Your task to perform on an android device: add a contact in the contacts app Image 0: 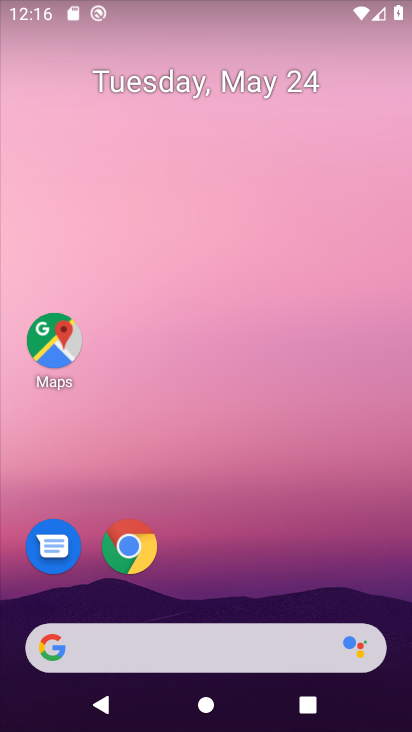
Step 0: drag from (251, 611) to (248, 56)
Your task to perform on an android device: add a contact in the contacts app Image 1: 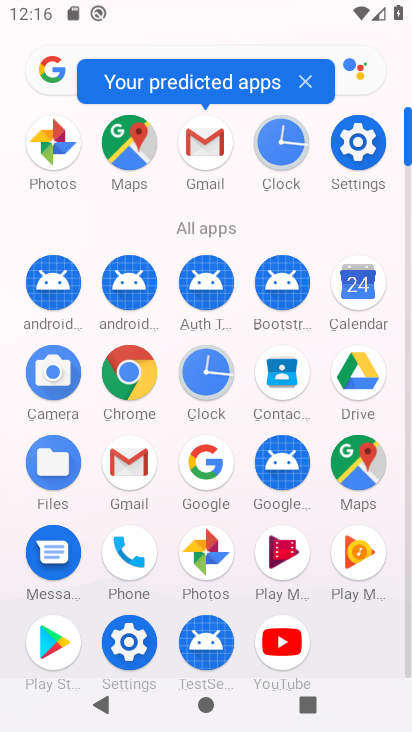
Step 1: click (283, 384)
Your task to perform on an android device: add a contact in the contacts app Image 2: 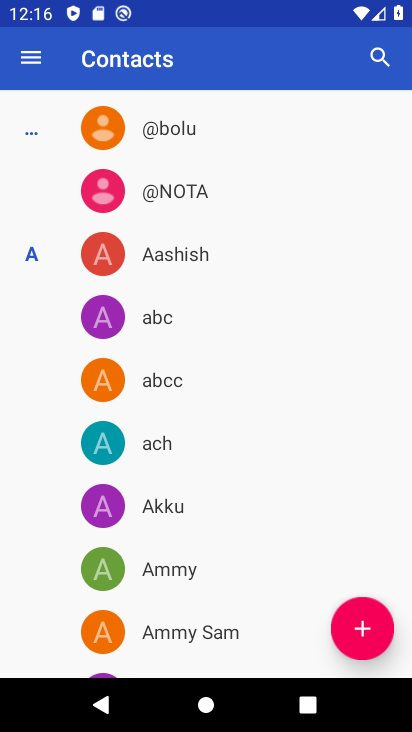
Step 2: click (351, 631)
Your task to perform on an android device: add a contact in the contacts app Image 3: 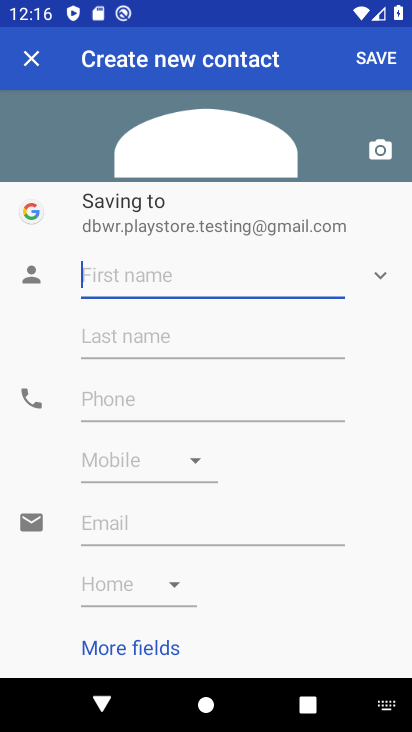
Step 3: type "njkijmnn"
Your task to perform on an android device: add a contact in the contacts app Image 4: 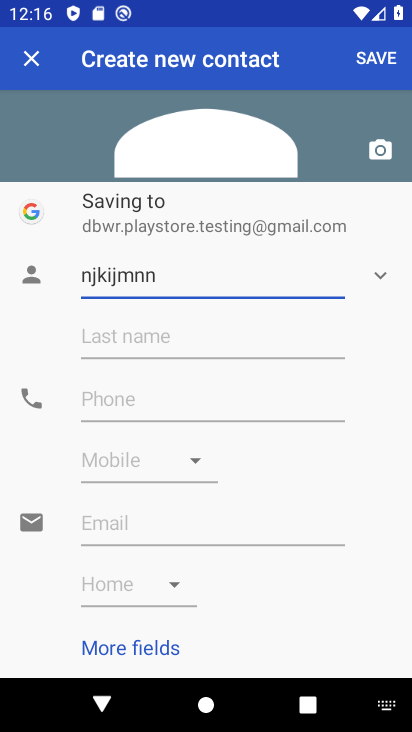
Step 4: click (104, 409)
Your task to perform on an android device: add a contact in the contacts app Image 5: 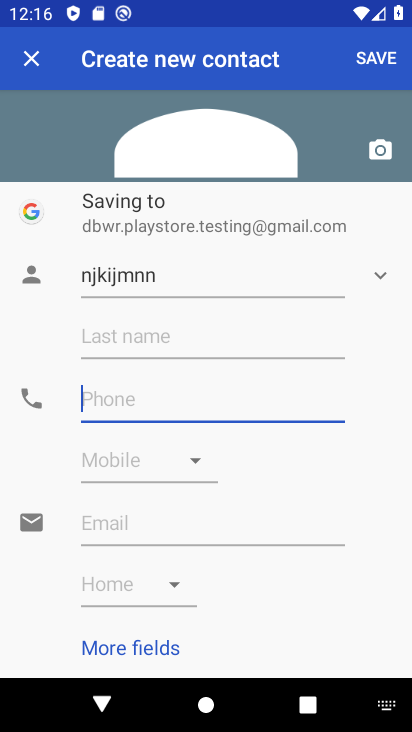
Step 5: type "6789987789"
Your task to perform on an android device: add a contact in the contacts app Image 6: 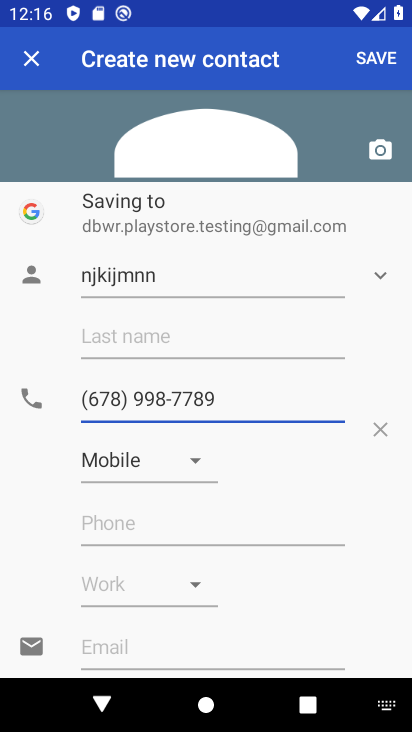
Step 6: task complete